Your task to perform on an android device: check google app version Image 0: 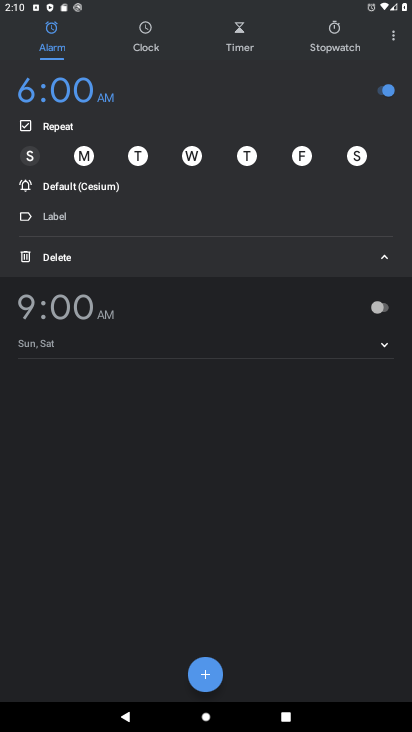
Step 0: press home button
Your task to perform on an android device: check google app version Image 1: 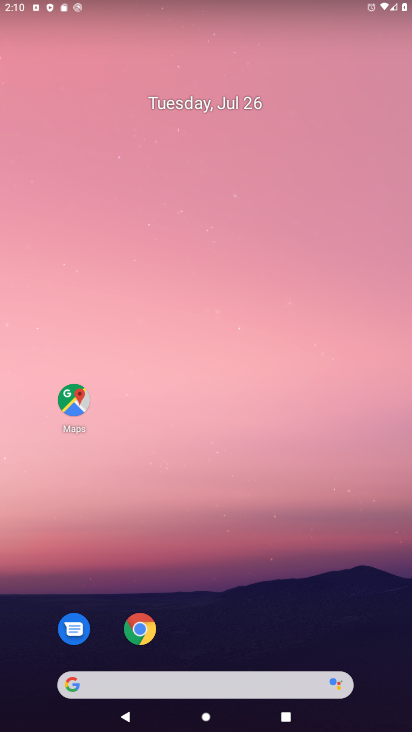
Step 1: click (140, 630)
Your task to perform on an android device: check google app version Image 2: 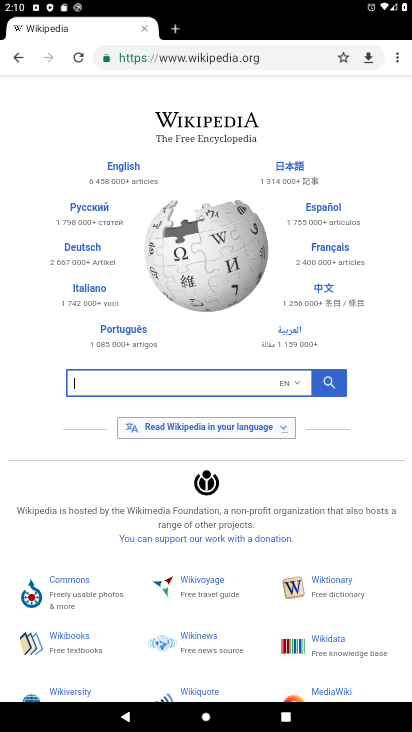
Step 2: click (394, 60)
Your task to perform on an android device: check google app version Image 3: 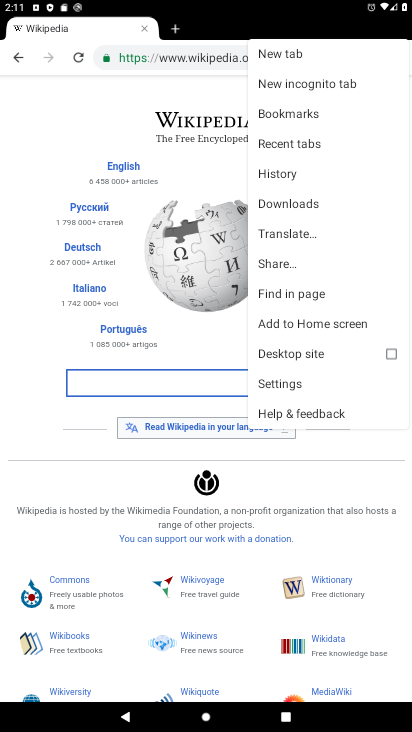
Step 3: click (285, 385)
Your task to perform on an android device: check google app version Image 4: 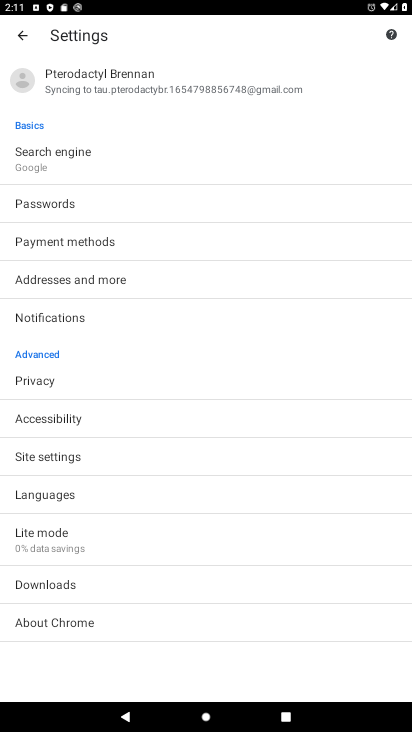
Step 4: click (65, 626)
Your task to perform on an android device: check google app version Image 5: 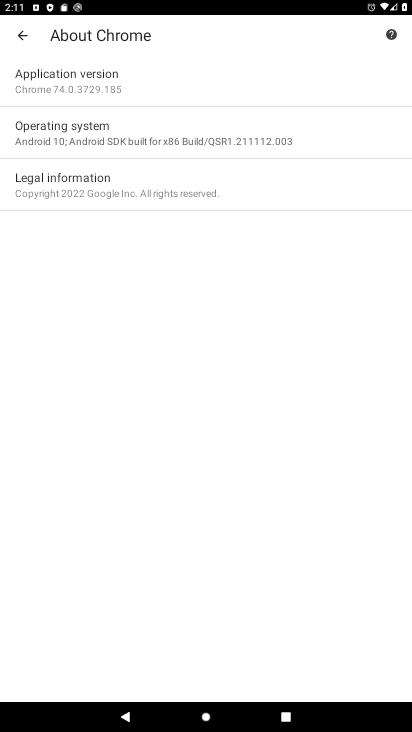
Step 5: click (88, 72)
Your task to perform on an android device: check google app version Image 6: 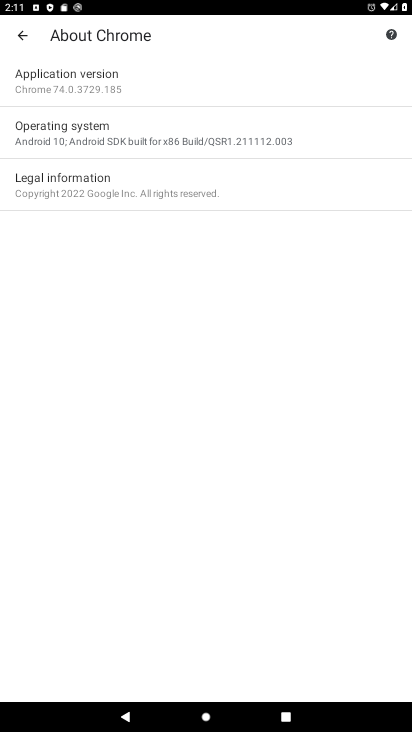
Step 6: task complete